Your task to perform on an android device: open chrome and create a bookmark for the current page Image 0: 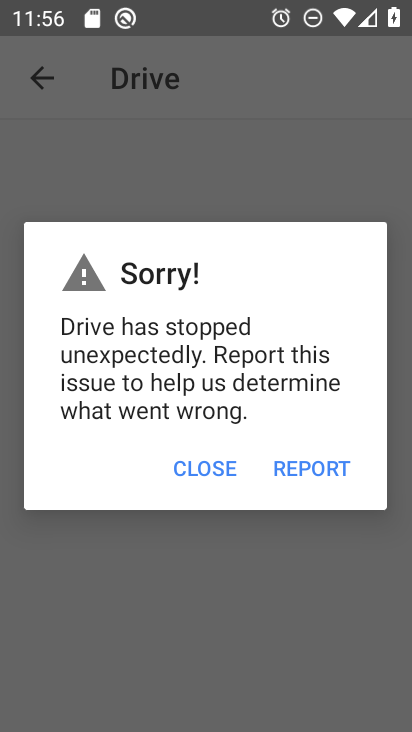
Step 0: press home button
Your task to perform on an android device: open chrome and create a bookmark for the current page Image 1: 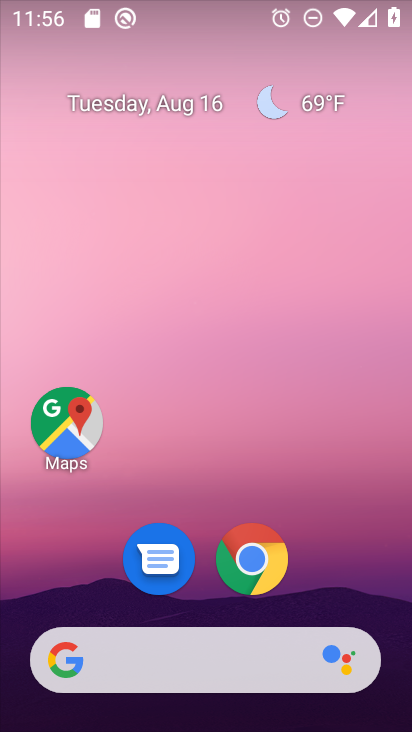
Step 1: click (251, 561)
Your task to perform on an android device: open chrome and create a bookmark for the current page Image 2: 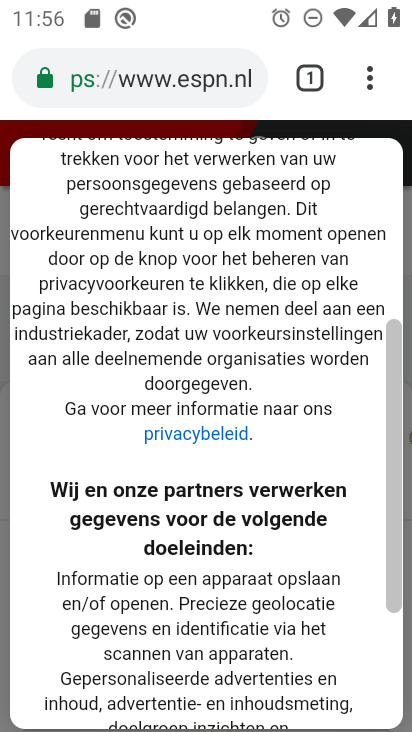
Step 2: click (390, 82)
Your task to perform on an android device: open chrome and create a bookmark for the current page Image 3: 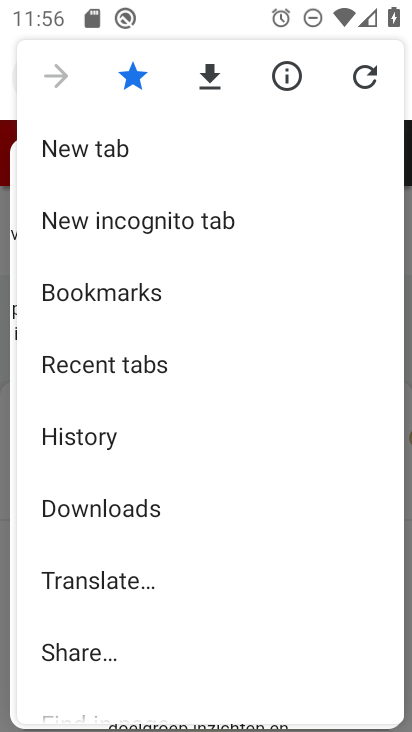
Step 3: task complete